Your task to perform on an android device: toggle data saver in the chrome app Image 0: 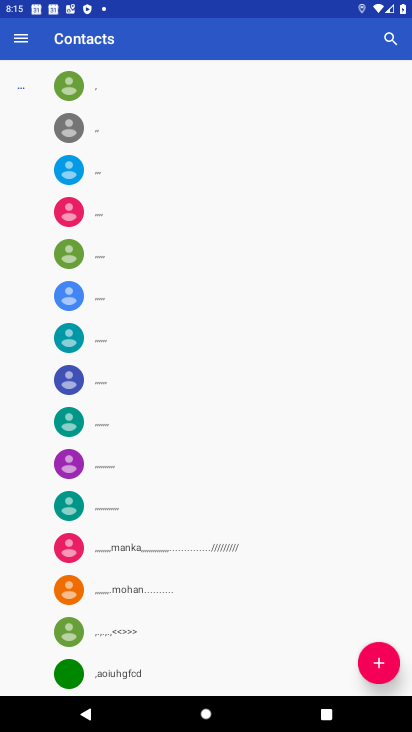
Step 0: press home button
Your task to perform on an android device: toggle data saver in the chrome app Image 1: 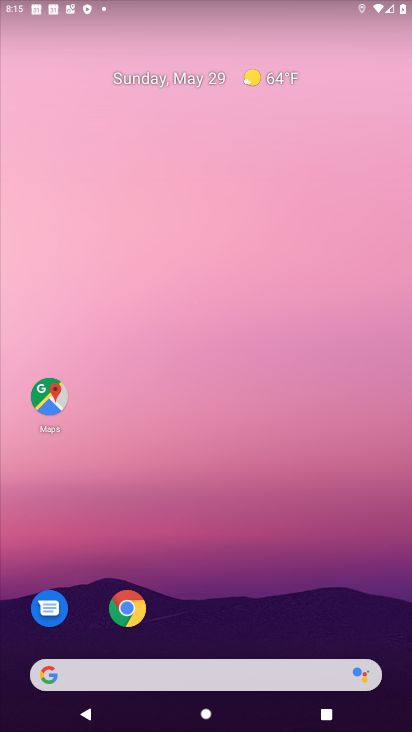
Step 1: click (126, 613)
Your task to perform on an android device: toggle data saver in the chrome app Image 2: 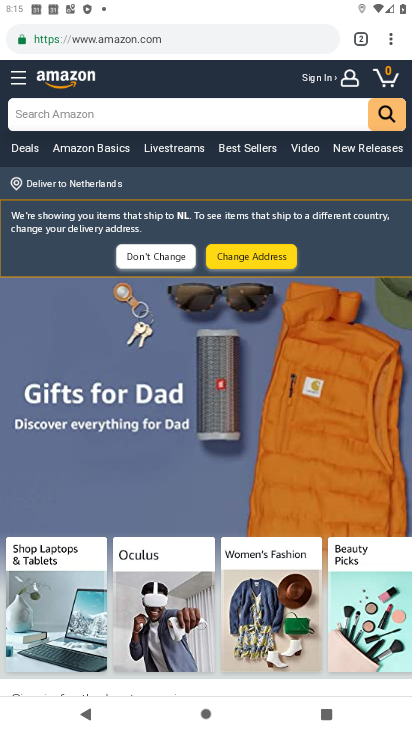
Step 2: click (384, 34)
Your task to perform on an android device: toggle data saver in the chrome app Image 3: 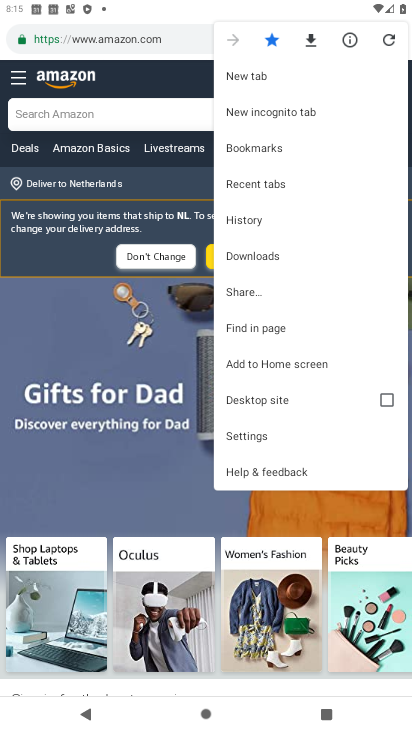
Step 3: click (256, 433)
Your task to perform on an android device: toggle data saver in the chrome app Image 4: 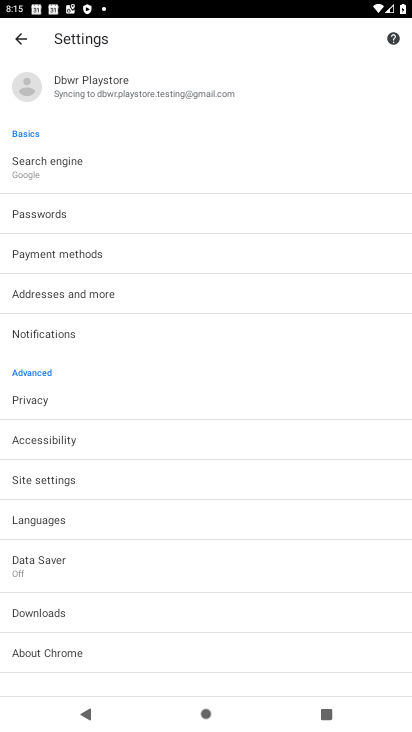
Step 4: click (30, 563)
Your task to perform on an android device: toggle data saver in the chrome app Image 5: 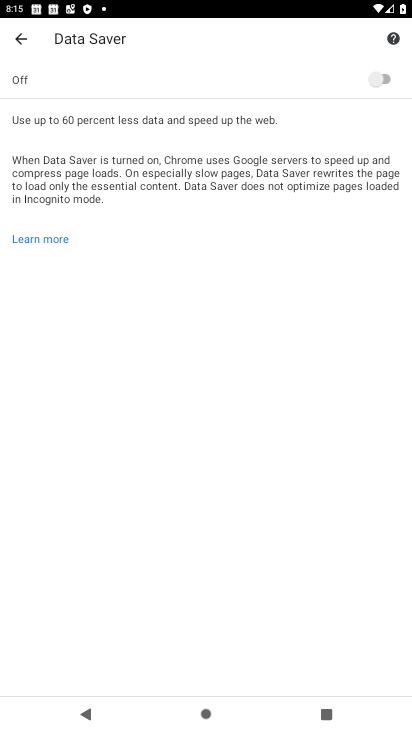
Step 5: click (370, 63)
Your task to perform on an android device: toggle data saver in the chrome app Image 6: 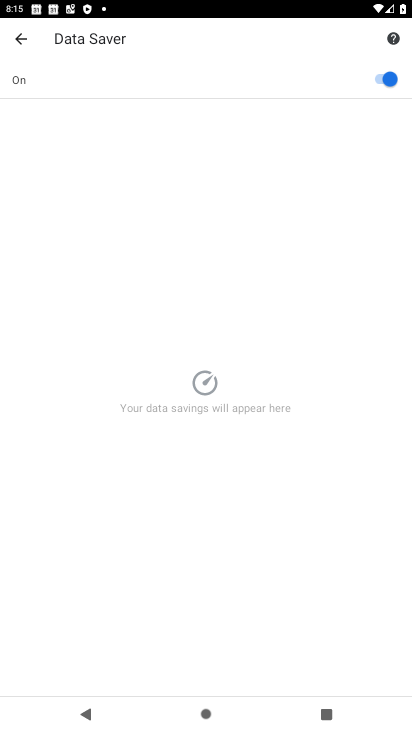
Step 6: task complete